Your task to perform on an android device: Open sound settings Image 0: 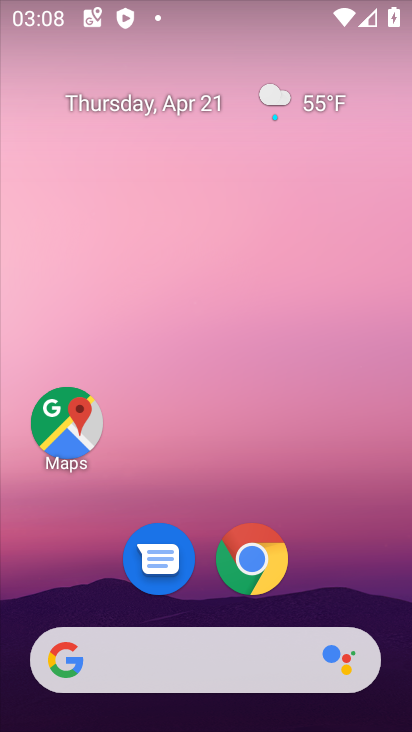
Step 0: drag from (328, 531) to (225, 20)
Your task to perform on an android device: Open sound settings Image 1: 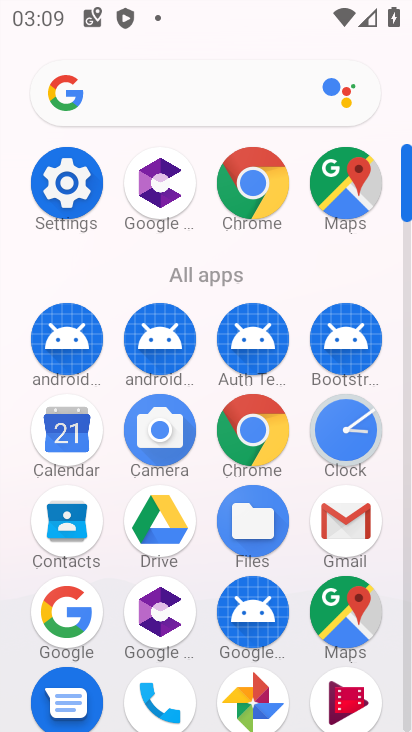
Step 1: click (42, 212)
Your task to perform on an android device: Open sound settings Image 2: 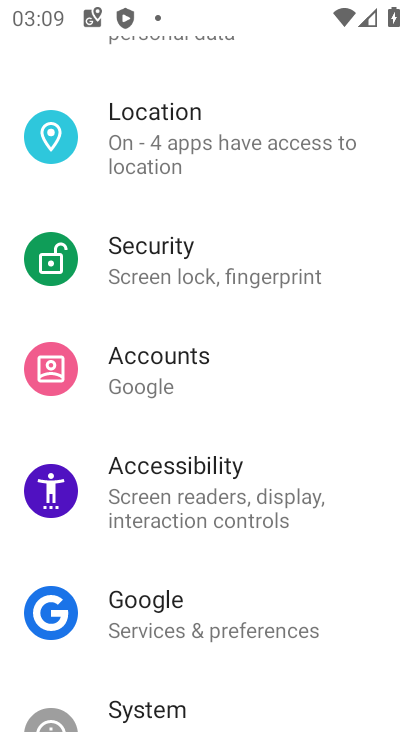
Step 2: drag from (155, 144) to (143, 533)
Your task to perform on an android device: Open sound settings Image 3: 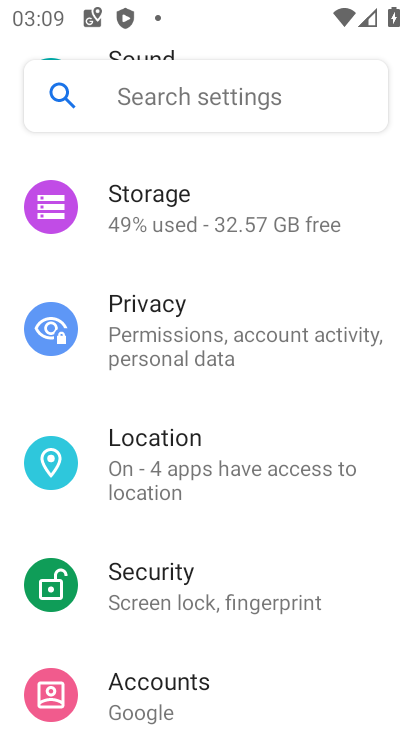
Step 3: drag from (122, 210) to (143, 530)
Your task to perform on an android device: Open sound settings Image 4: 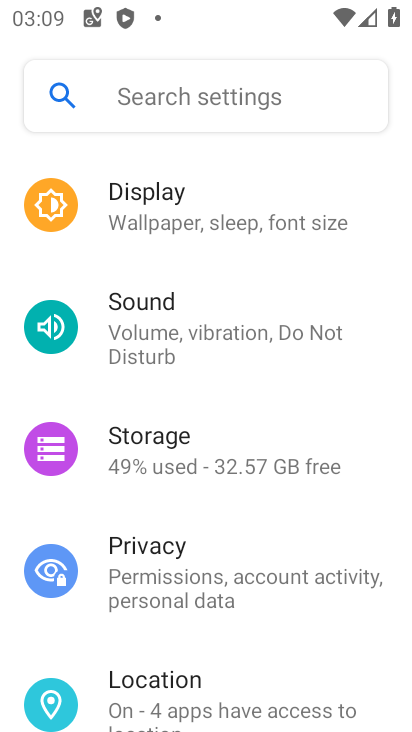
Step 4: click (147, 316)
Your task to perform on an android device: Open sound settings Image 5: 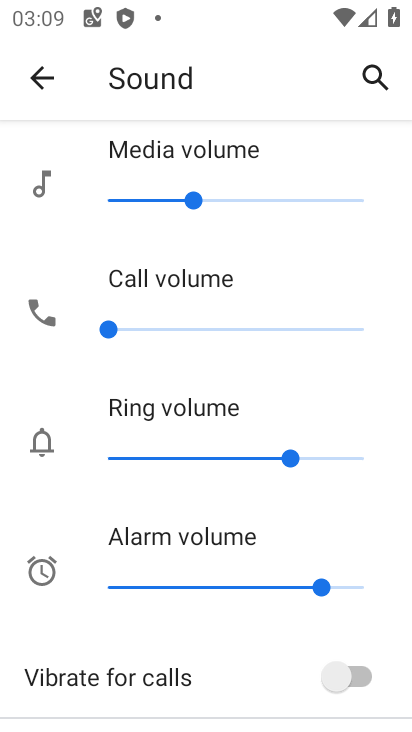
Step 5: task complete